Your task to perform on an android device: Turn on the flashlight Image 0: 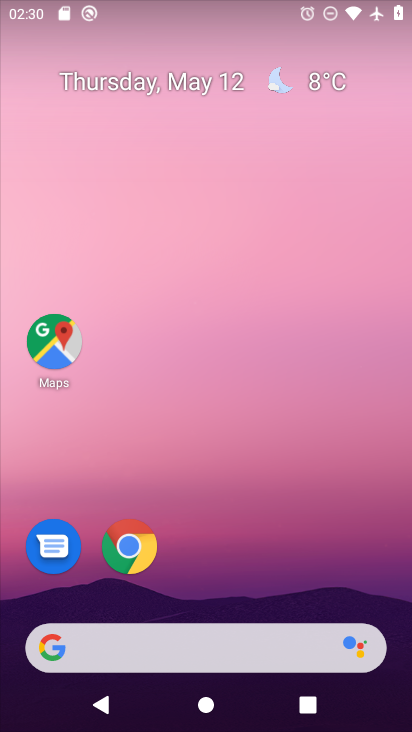
Step 0: drag from (252, 0) to (198, 438)
Your task to perform on an android device: Turn on the flashlight Image 1: 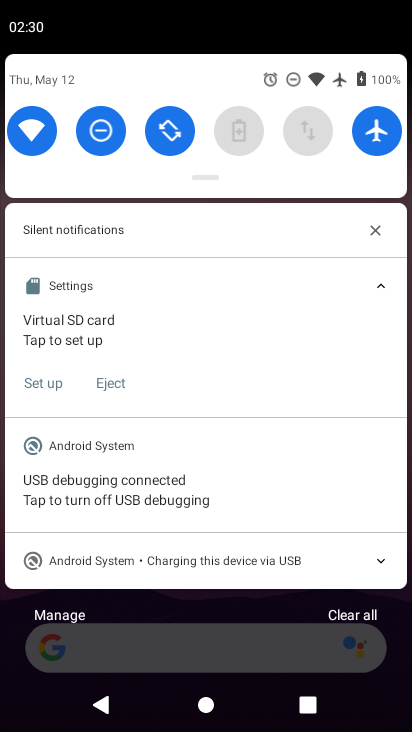
Step 1: task complete